Your task to perform on an android device: Go to settings Image 0: 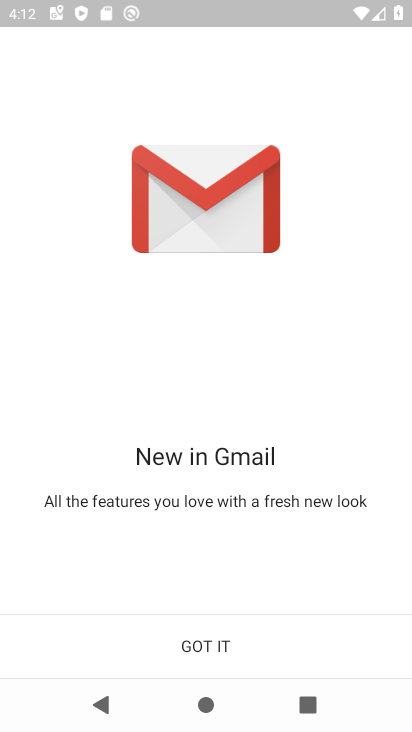
Step 0: press home button
Your task to perform on an android device: Go to settings Image 1: 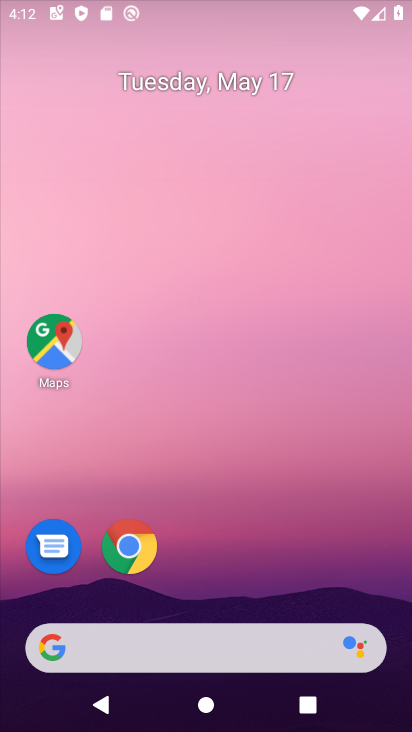
Step 1: drag from (212, 538) to (285, 94)
Your task to perform on an android device: Go to settings Image 2: 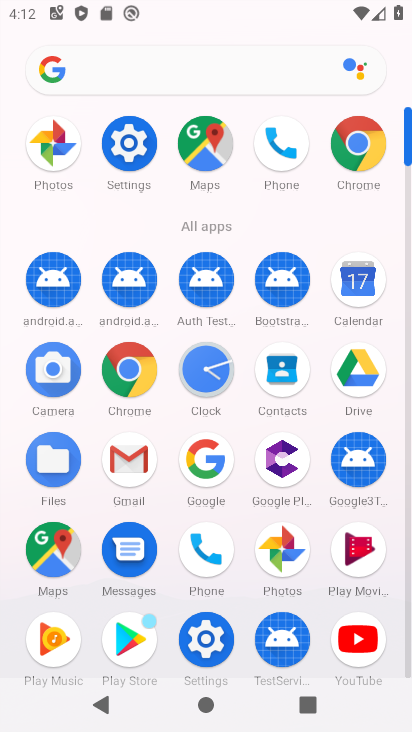
Step 2: click (144, 163)
Your task to perform on an android device: Go to settings Image 3: 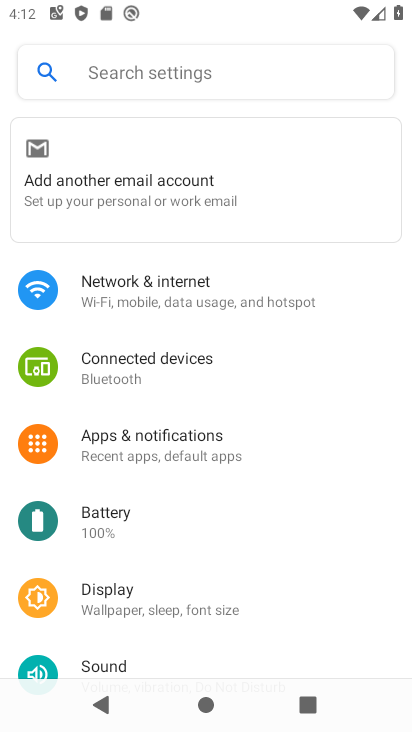
Step 3: task complete